Your task to perform on an android device: Go to Google maps Image 0: 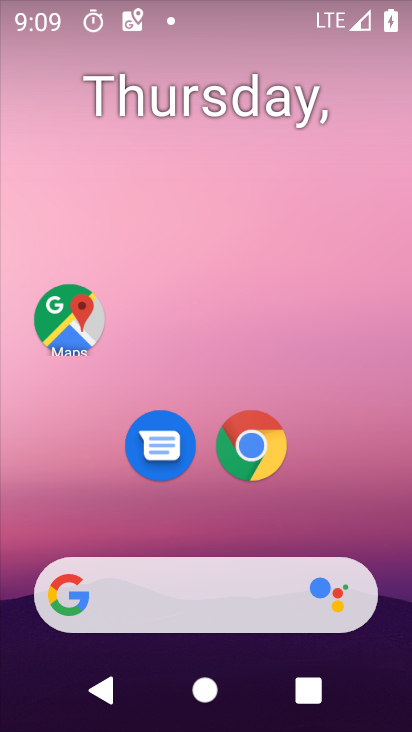
Step 0: click (74, 320)
Your task to perform on an android device: Go to Google maps Image 1: 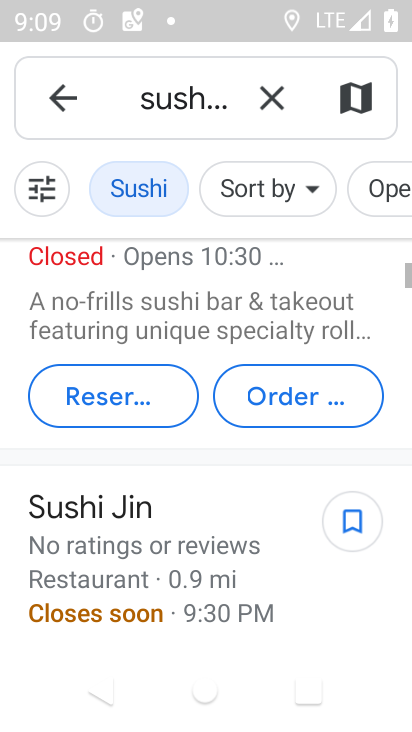
Step 1: click (261, 103)
Your task to perform on an android device: Go to Google maps Image 2: 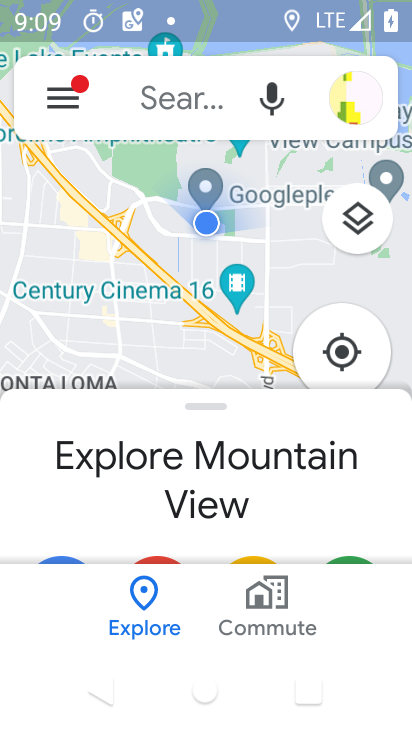
Step 2: task complete